Your task to perform on an android device: Open wifi settings Image 0: 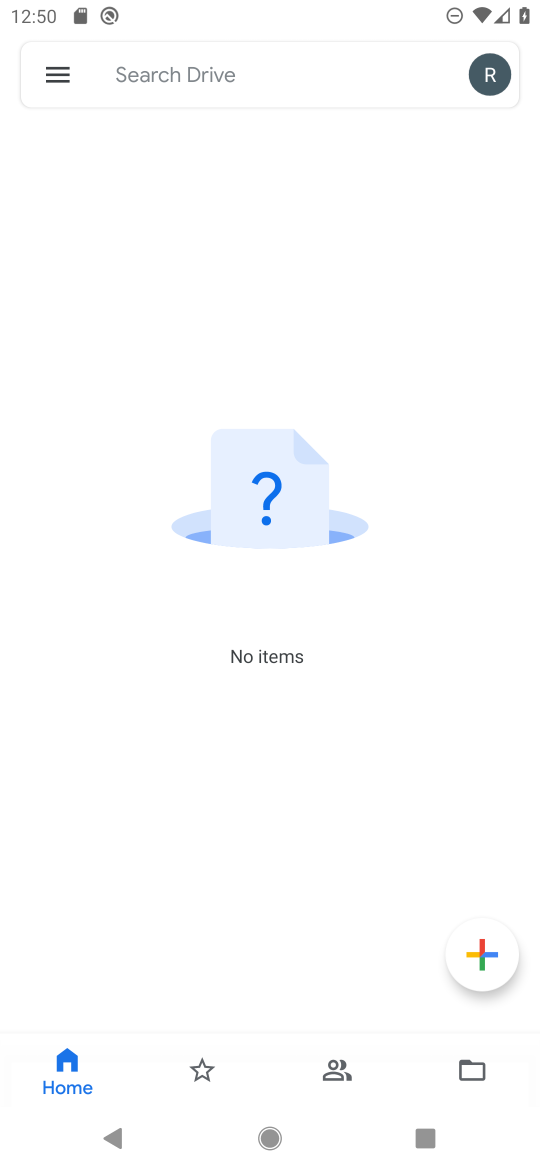
Step 0: drag from (182, 23) to (177, 918)
Your task to perform on an android device: Open wifi settings Image 1: 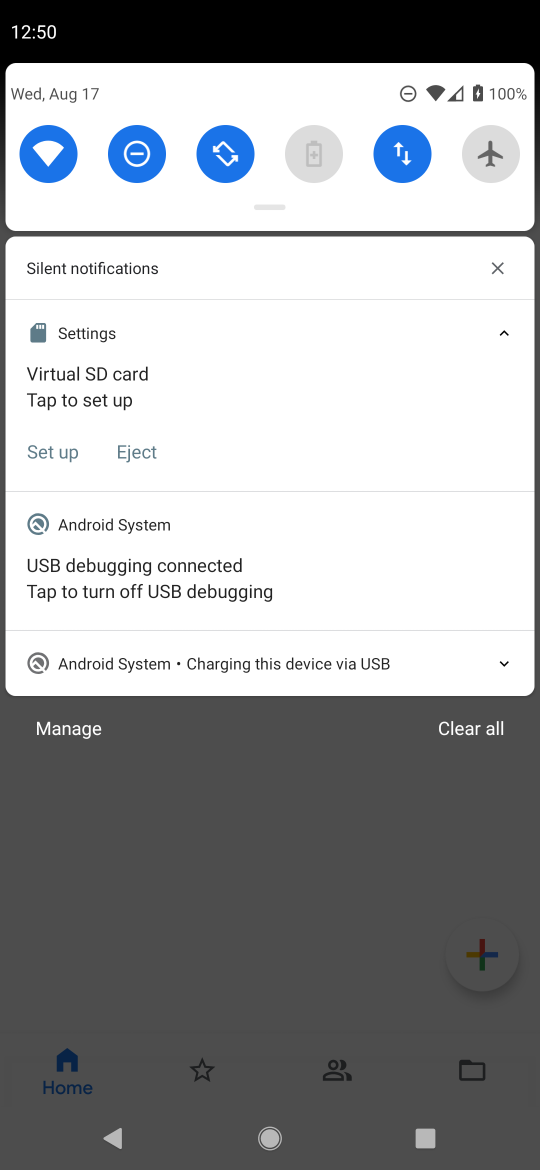
Step 1: click (49, 175)
Your task to perform on an android device: Open wifi settings Image 2: 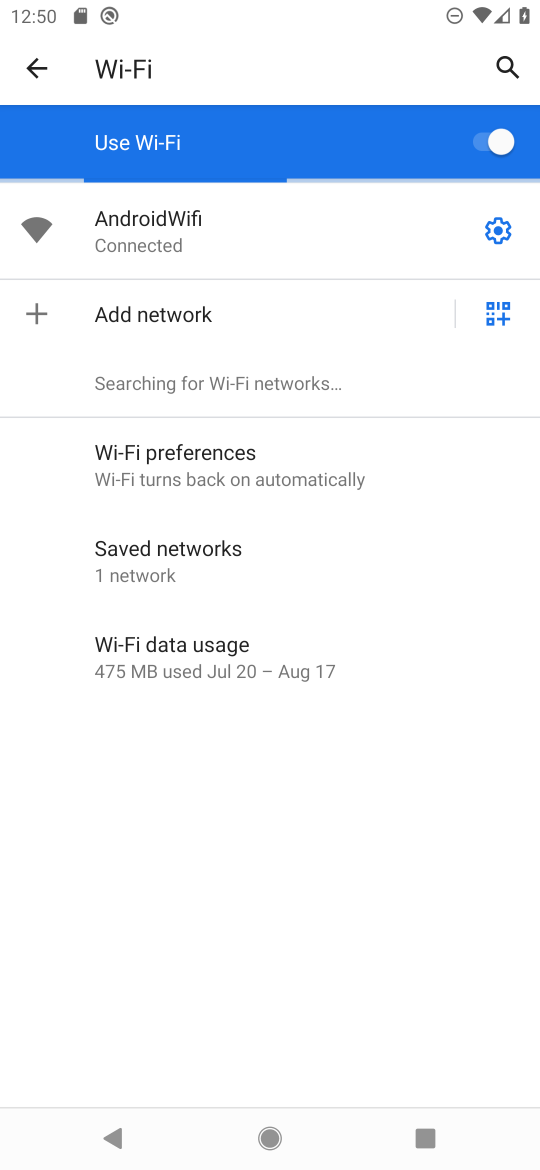
Step 2: task complete